Your task to perform on an android device: Check the news Image 0: 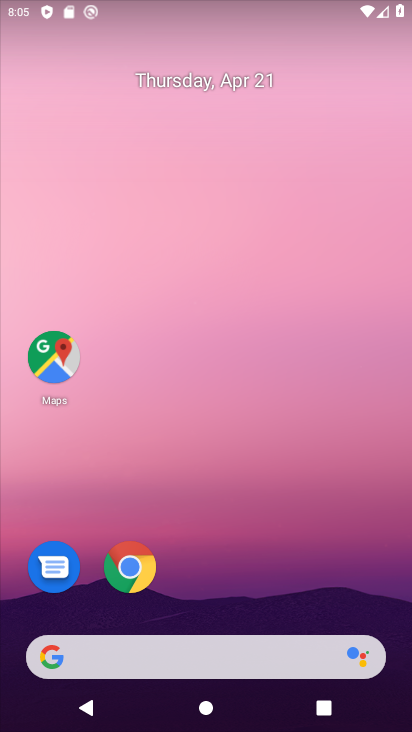
Step 0: drag from (18, 205) to (167, 718)
Your task to perform on an android device: Check the news Image 1: 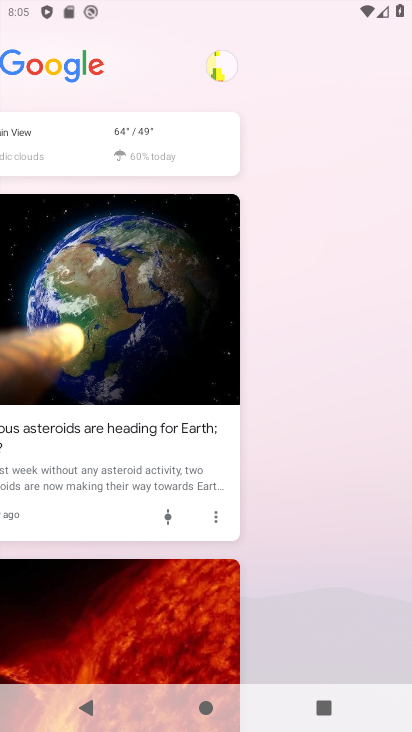
Step 1: task complete